Your task to perform on an android device: Open CNN.com Image 0: 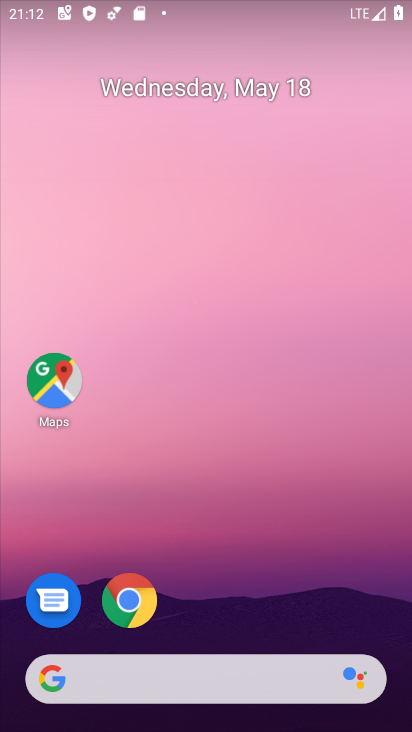
Step 0: click (110, 599)
Your task to perform on an android device: Open CNN.com Image 1: 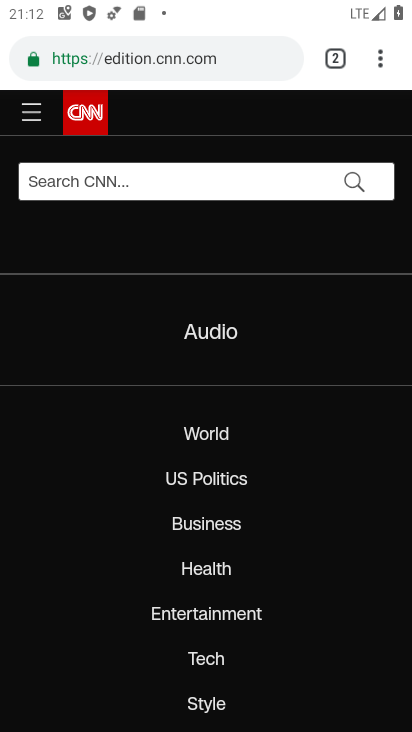
Step 1: task complete